Your task to perform on an android device: turn on improve location accuracy Image 0: 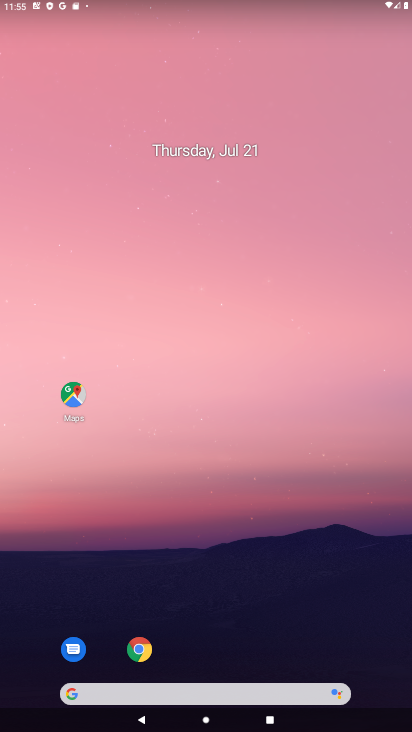
Step 0: drag from (234, 725) to (230, 227)
Your task to perform on an android device: turn on improve location accuracy Image 1: 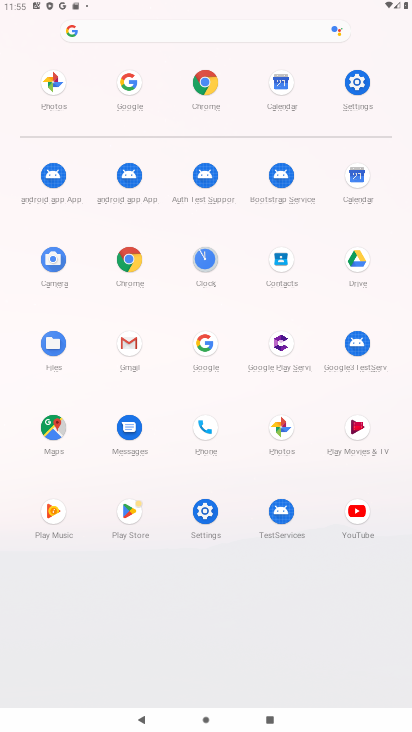
Step 1: click (360, 75)
Your task to perform on an android device: turn on improve location accuracy Image 2: 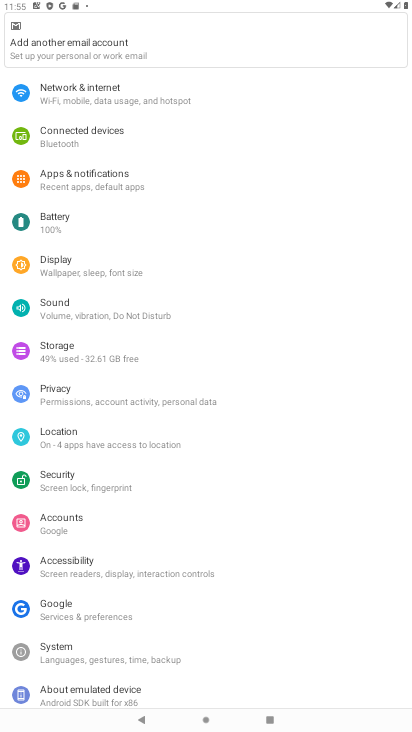
Step 2: click (61, 441)
Your task to perform on an android device: turn on improve location accuracy Image 3: 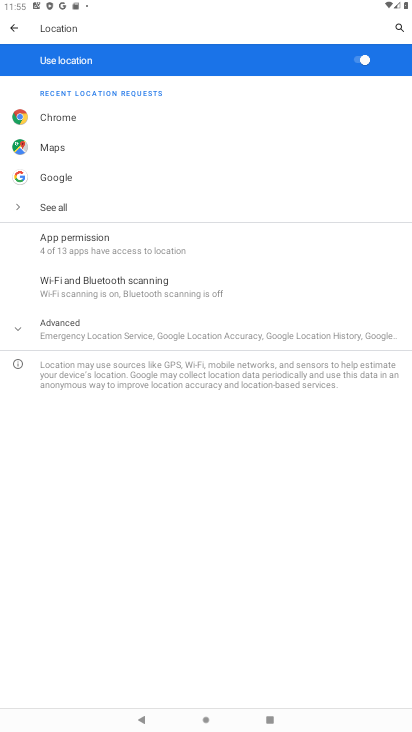
Step 3: click (92, 330)
Your task to perform on an android device: turn on improve location accuracy Image 4: 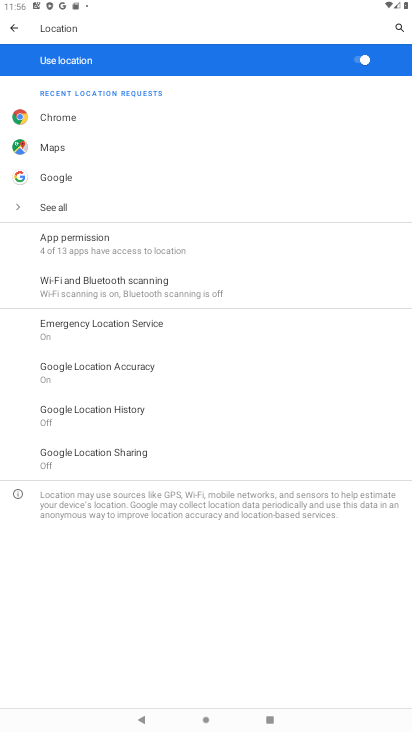
Step 4: click (92, 368)
Your task to perform on an android device: turn on improve location accuracy Image 5: 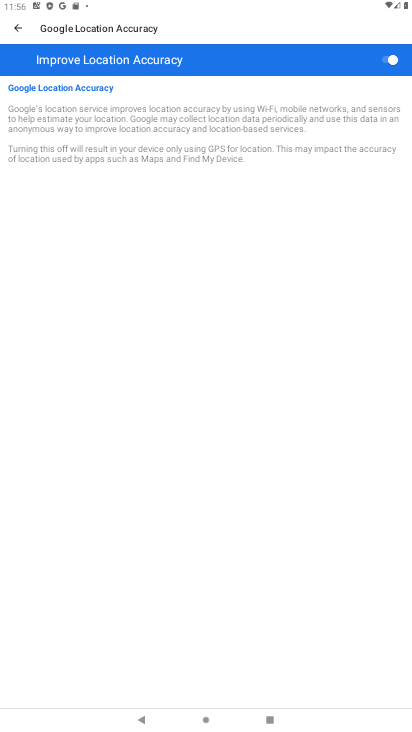
Step 5: task complete